Your task to perform on an android device: turn on the 12-hour format for clock Image 0: 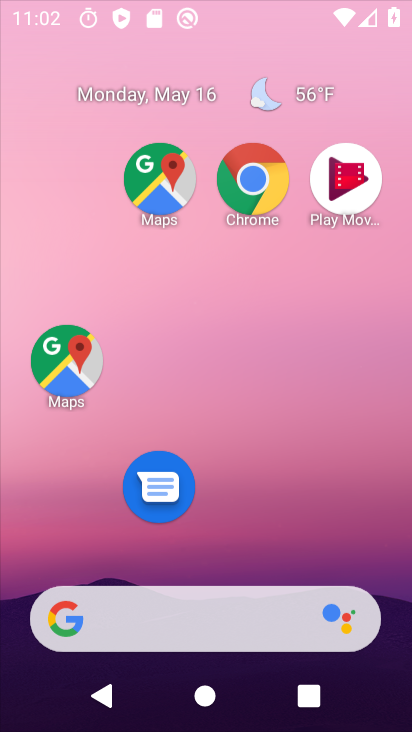
Step 0: click (411, 621)
Your task to perform on an android device: turn on the 12-hour format for clock Image 1: 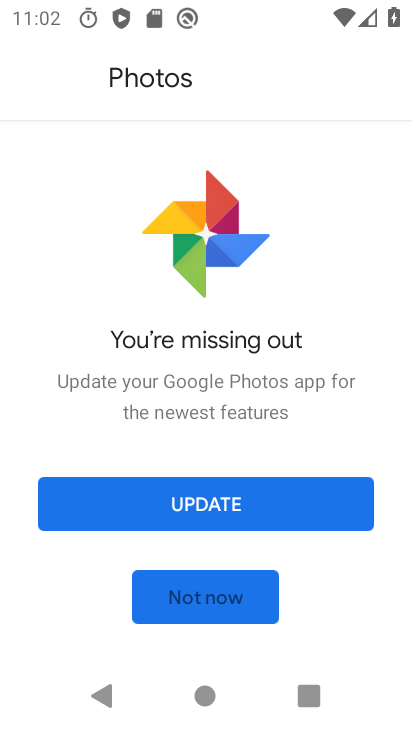
Step 1: click (218, 598)
Your task to perform on an android device: turn on the 12-hour format for clock Image 2: 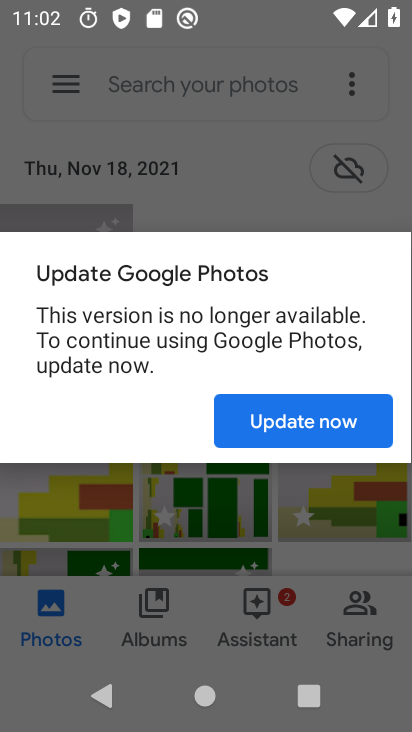
Step 2: press home button
Your task to perform on an android device: turn on the 12-hour format for clock Image 3: 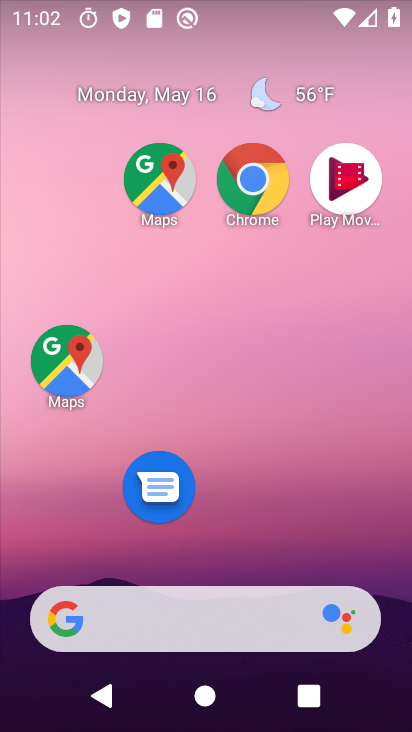
Step 3: drag from (280, 88) to (285, 27)
Your task to perform on an android device: turn on the 12-hour format for clock Image 4: 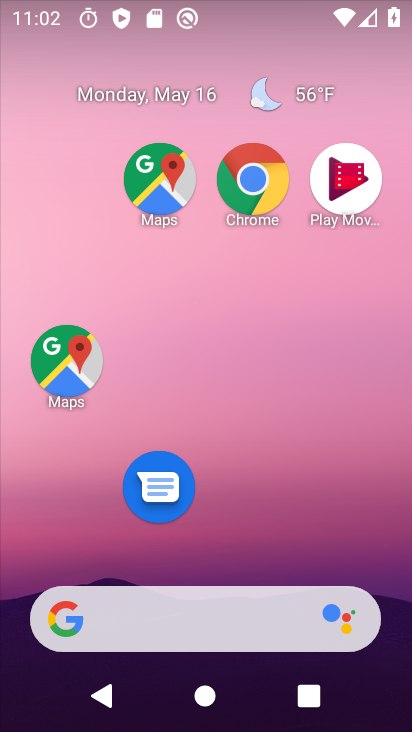
Step 4: drag from (226, 547) to (313, 44)
Your task to perform on an android device: turn on the 12-hour format for clock Image 5: 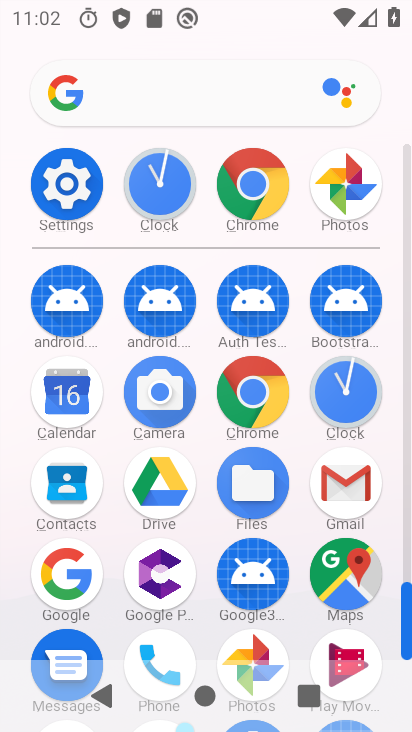
Step 5: click (355, 406)
Your task to perform on an android device: turn on the 12-hour format for clock Image 6: 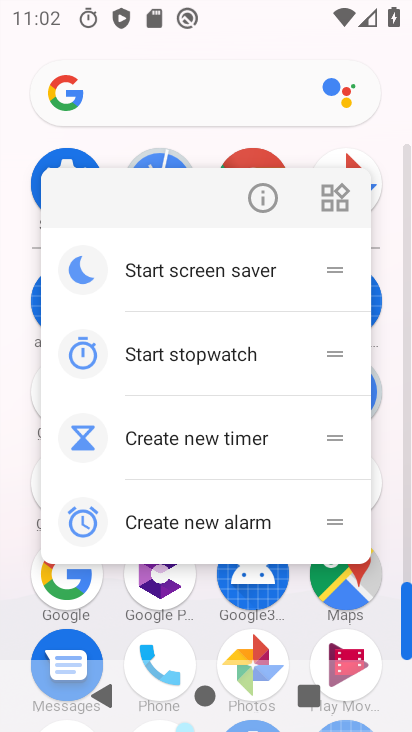
Step 6: click (376, 397)
Your task to perform on an android device: turn on the 12-hour format for clock Image 7: 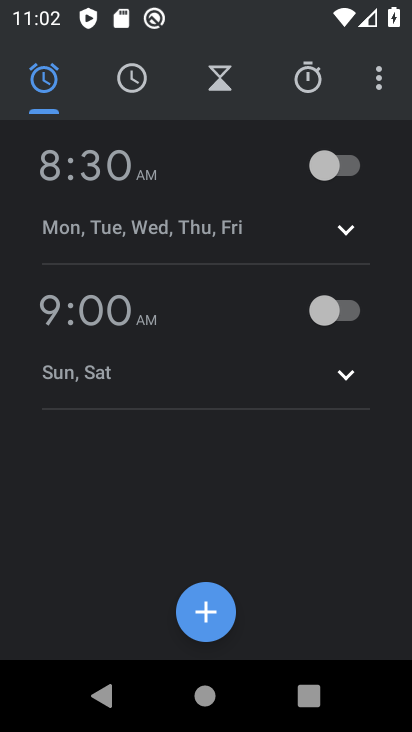
Step 7: click (381, 78)
Your task to perform on an android device: turn on the 12-hour format for clock Image 8: 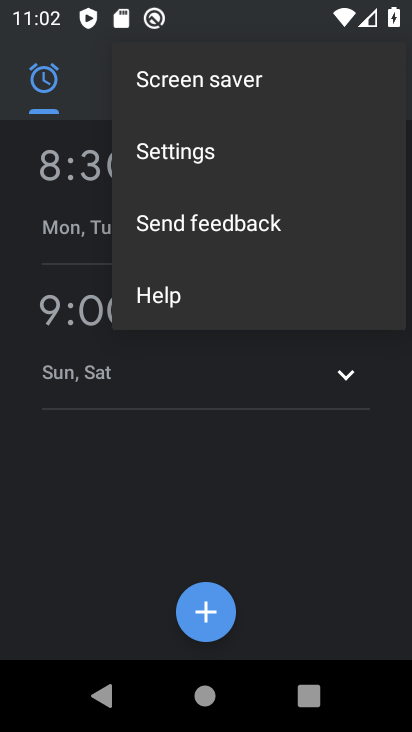
Step 8: click (228, 157)
Your task to perform on an android device: turn on the 12-hour format for clock Image 9: 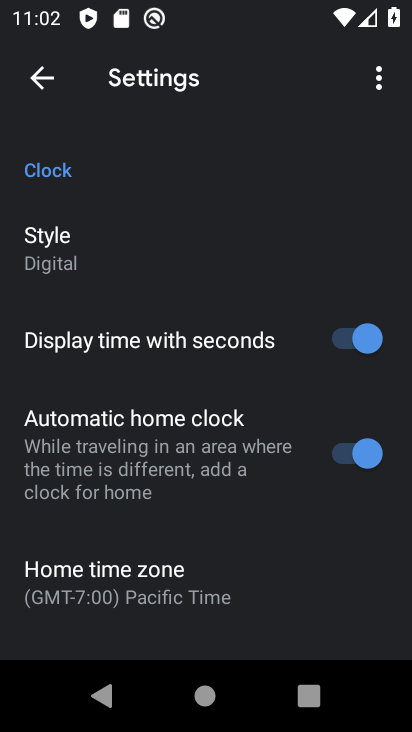
Step 9: drag from (246, 601) to (232, 251)
Your task to perform on an android device: turn on the 12-hour format for clock Image 10: 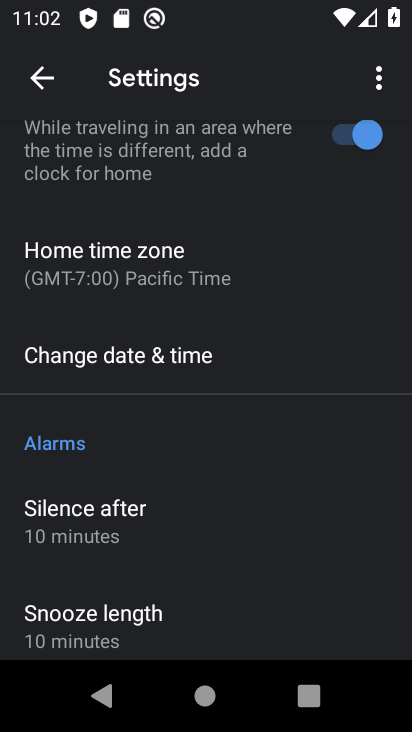
Step 10: click (147, 358)
Your task to perform on an android device: turn on the 12-hour format for clock Image 11: 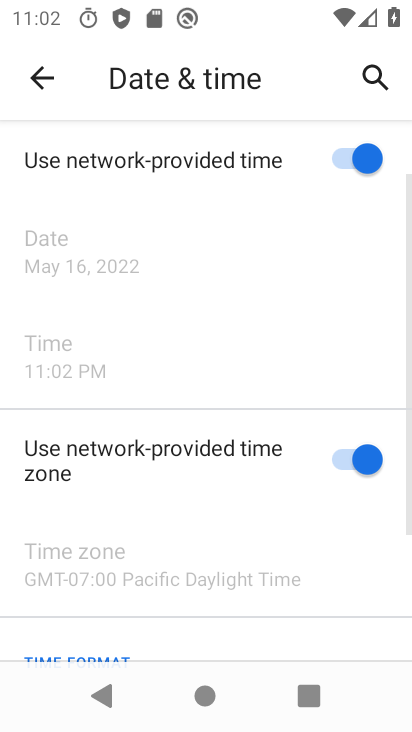
Step 11: task complete